Your task to perform on an android device: read, delete, or share a saved page in the chrome app Image 0: 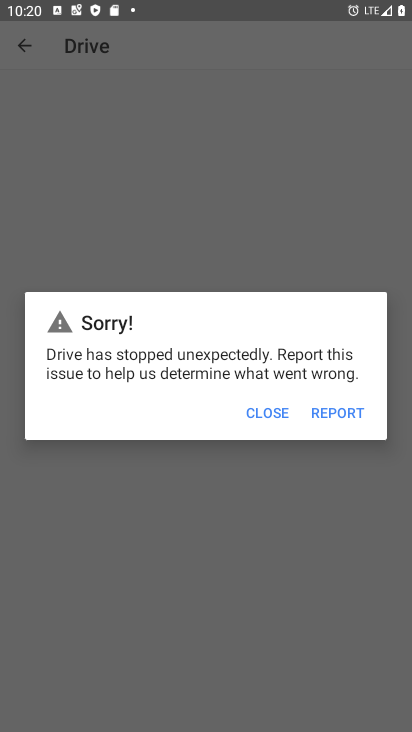
Step 0: press home button
Your task to perform on an android device: read, delete, or share a saved page in the chrome app Image 1: 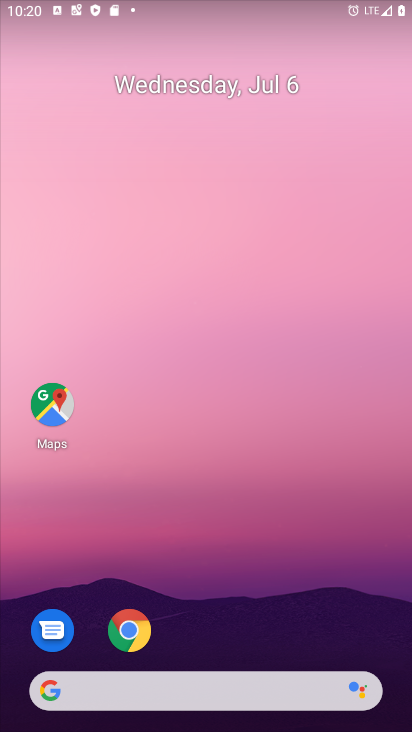
Step 1: click (133, 626)
Your task to perform on an android device: read, delete, or share a saved page in the chrome app Image 2: 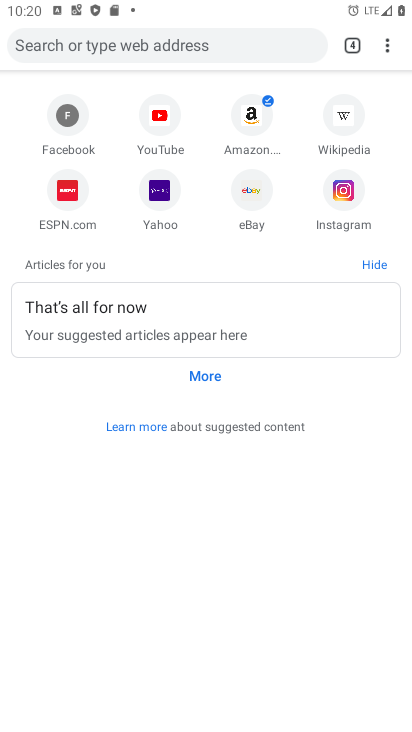
Step 2: click (387, 47)
Your task to perform on an android device: read, delete, or share a saved page in the chrome app Image 3: 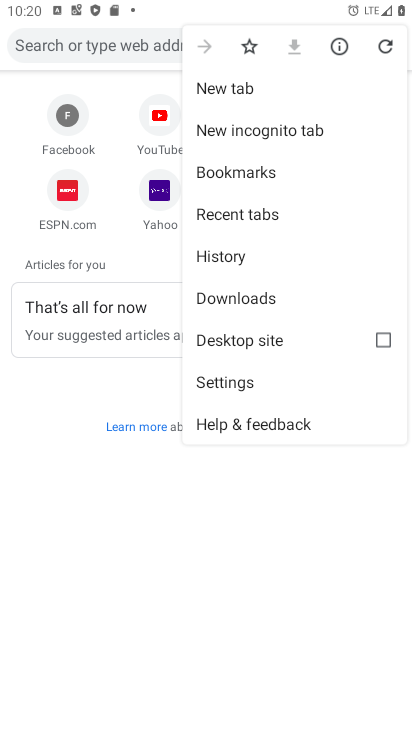
Step 3: click (229, 299)
Your task to perform on an android device: read, delete, or share a saved page in the chrome app Image 4: 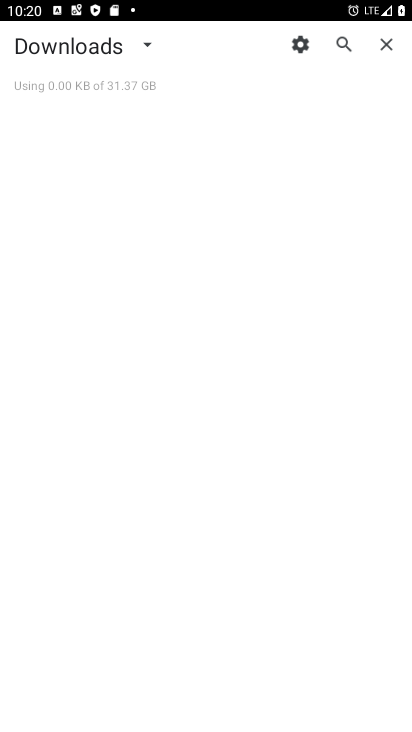
Step 4: click (148, 50)
Your task to perform on an android device: read, delete, or share a saved page in the chrome app Image 5: 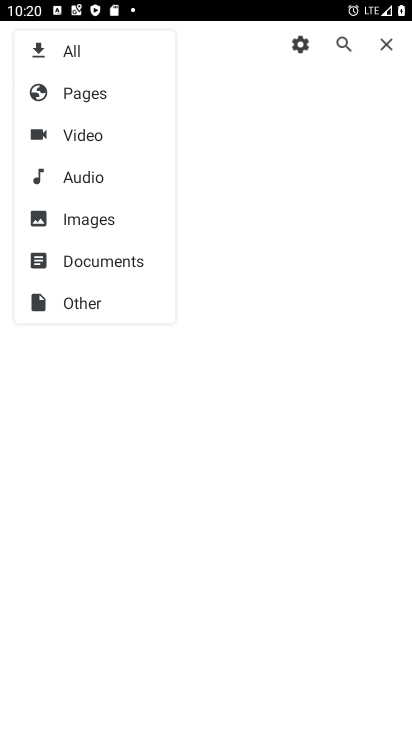
Step 5: click (78, 95)
Your task to perform on an android device: read, delete, or share a saved page in the chrome app Image 6: 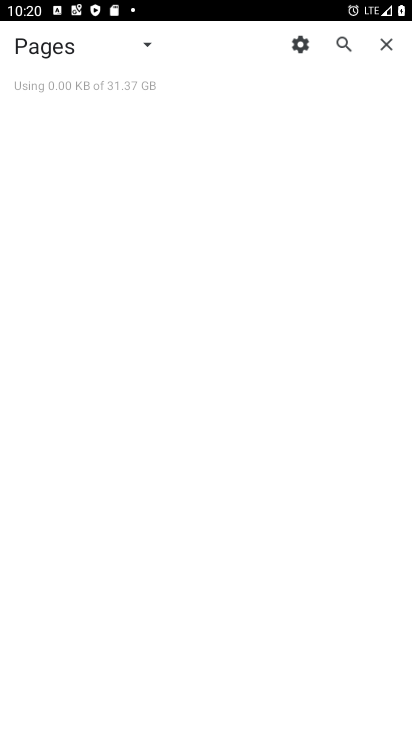
Step 6: task complete